Your task to perform on an android device: Search for vegetarian restaurants on Maps Image 0: 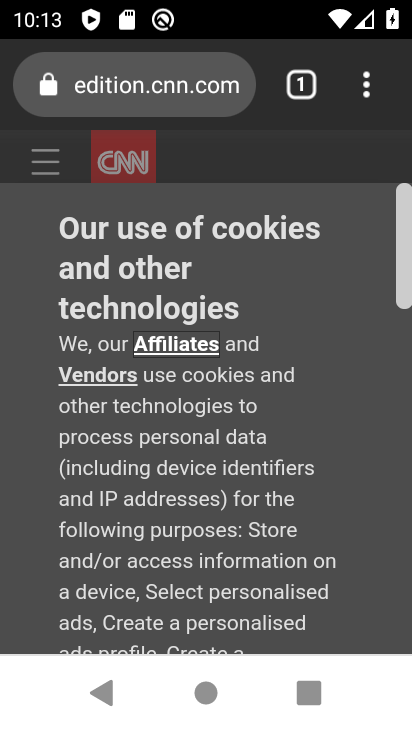
Step 0: drag from (224, 723) to (228, 45)
Your task to perform on an android device: Search for vegetarian restaurants on Maps Image 1: 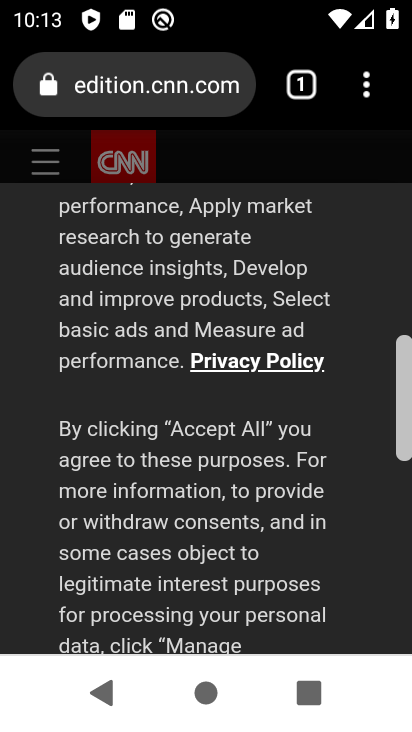
Step 1: press home button
Your task to perform on an android device: Search for vegetarian restaurants on Maps Image 2: 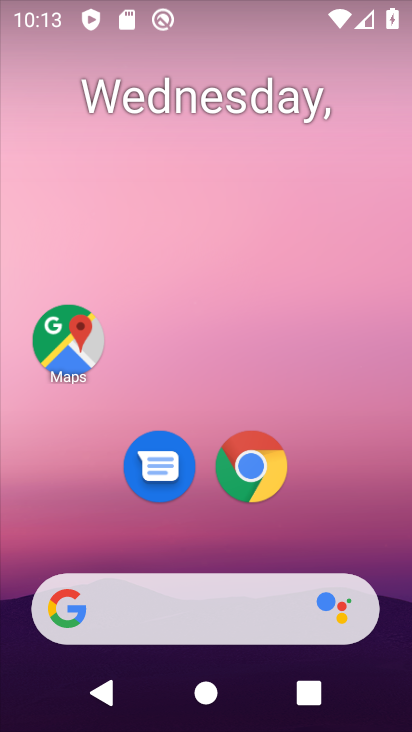
Step 2: drag from (231, 718) to (243, 96)
Your task to perform on an android device: Search for vegetarian restaurants on Maps Image 3: 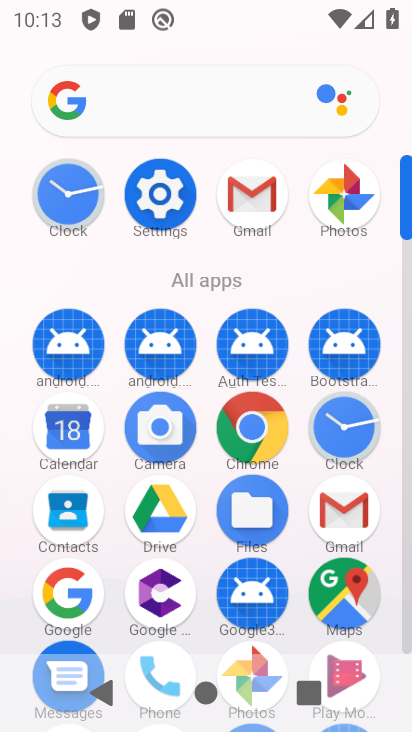
Step 3: click (341, 578)
Your task to perform on an android device: Search for vegetarian restaurants on Maps Image 4: 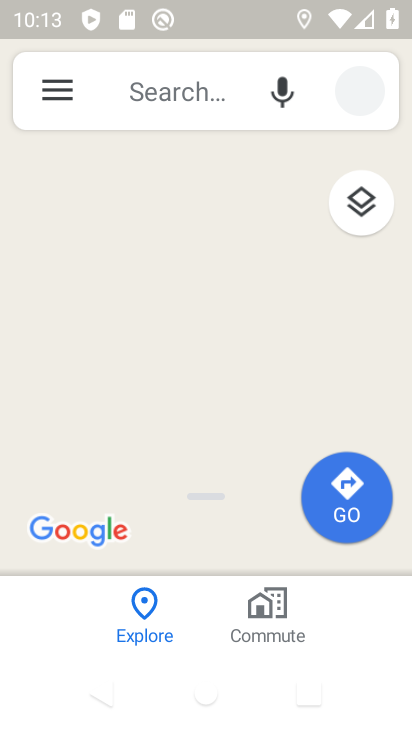
Step 4: click (188, 84)
Your task to perform on an android device: Search for vegetarian restaurants on Maps Image 5: 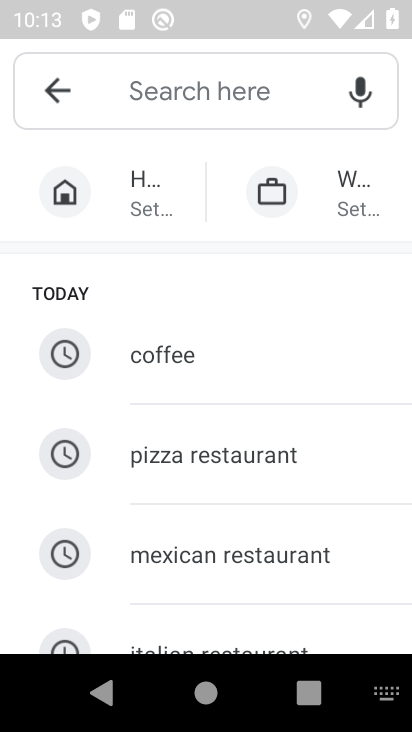
Step 5: type "vegetarian restaurants"
Your task to perform on an android device: Search for vegetarian restaurants on Maps Image 6: 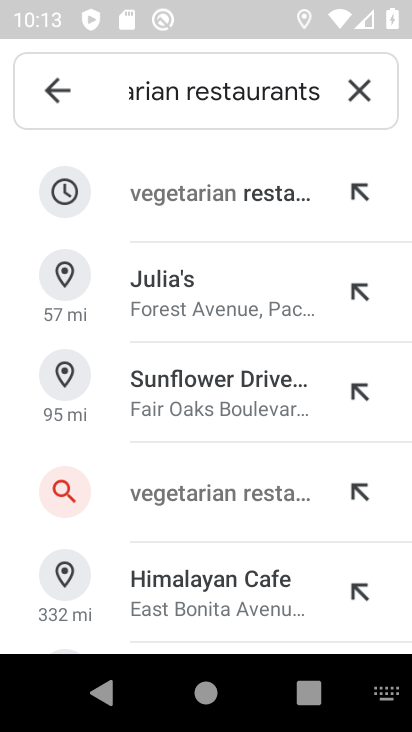
Step 6: click (176, 189)
Your task to perform on an android device: Search for vegetarian restaurants on Maps Image 7: 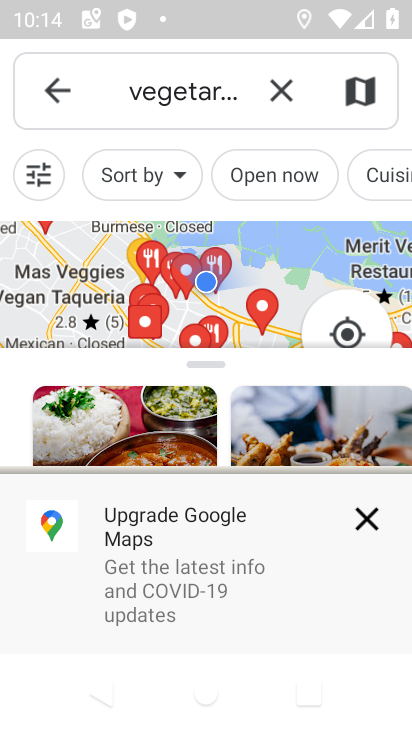
Step 7: task complete